Your task to perform on an android device: change notification settings in the gmail app Image 0: 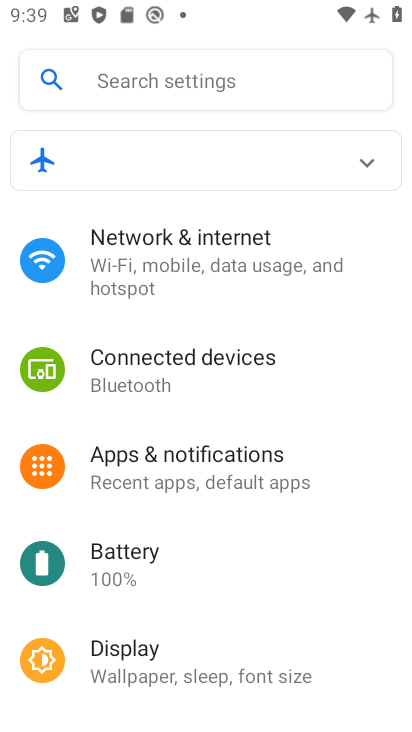
Step 0: press home button
Your task to perform on an android device: change notification settings in the gmail app Image 1: 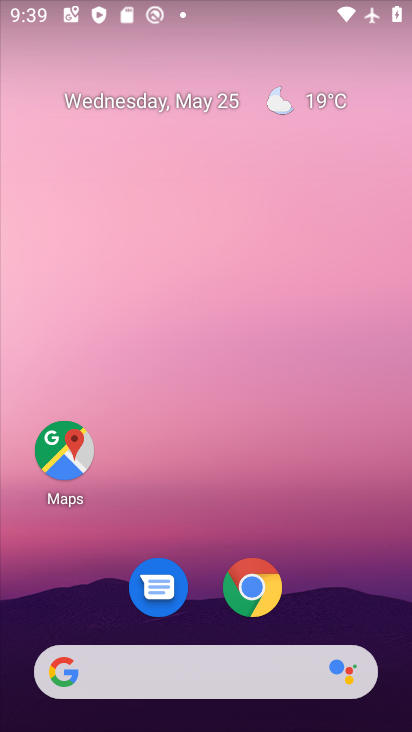
Step 1: drag from (406, 631) to (315, 188)
Your task to perform on an android device: change notification settings in the gmail app Image 2: 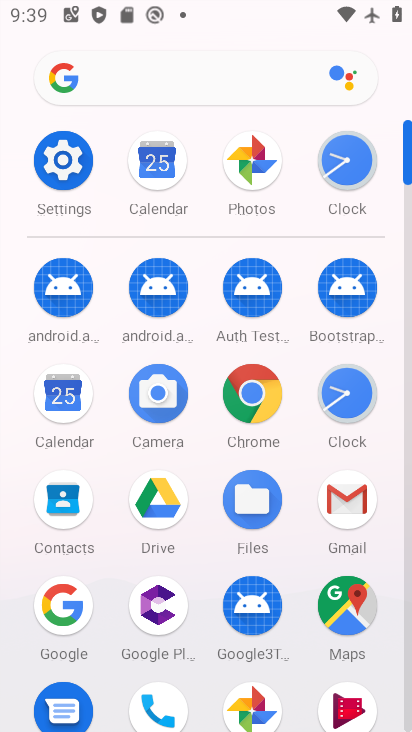
Step 2: click (405, 705)
Your task to perform on an android device: change notification settings in the gmail app Image 3: 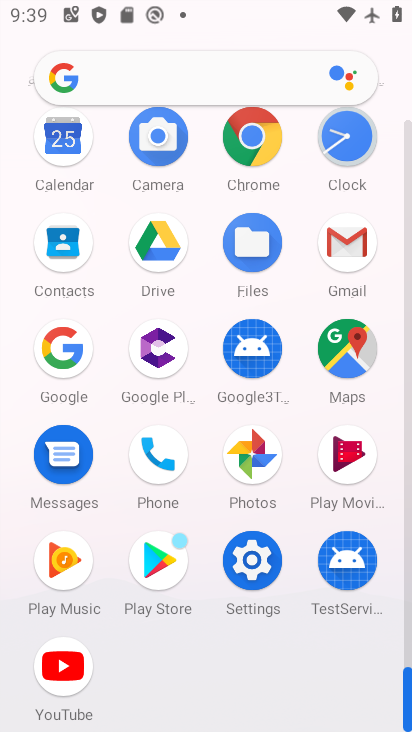
Step 3: click (345, 238)
Your task to perform on an android device: change notification settings in the gmail app Image 4: 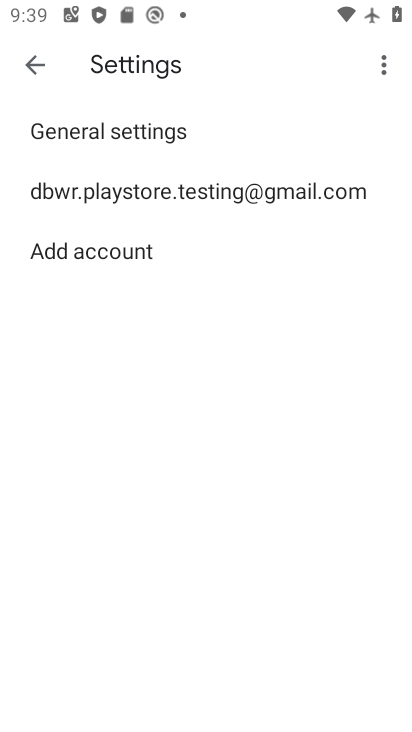
Step 4: click (137, 186)
Your task to perform on an android device: change notification settings in the gmail app Image 5: 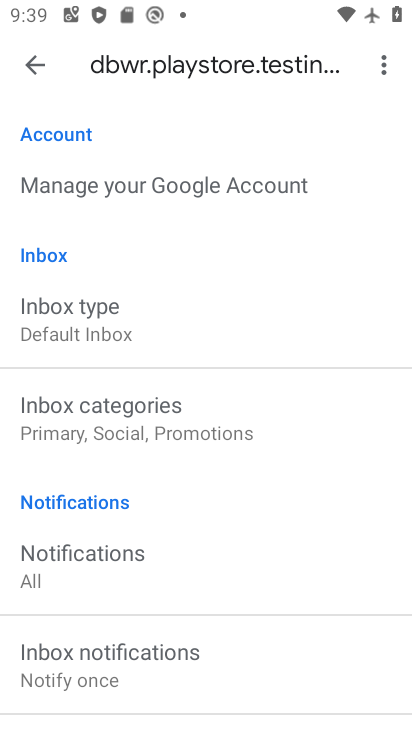
Step 5: drag from (249, 646) to (275, 168)
Your task to perform on an android device: change notification settings in the gmail app Image 6: 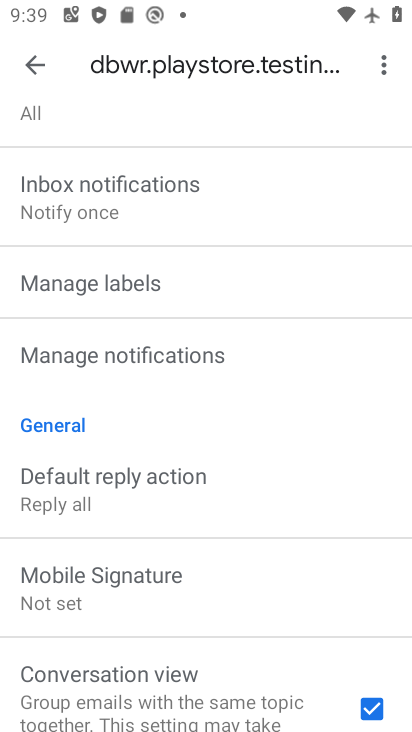
Step 6: click (82, 357)
Your task to perform on an android device: change notification settings in the gmail app Image 7: 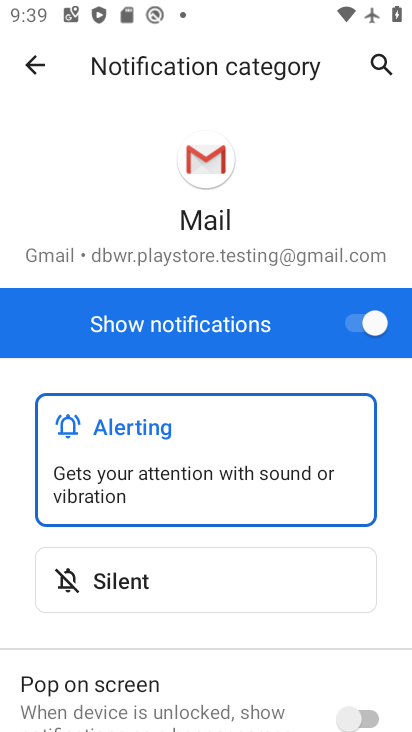
Step 7: click (350, 322)
Your task to perform on an android device: change notification settings in the gmail app Image 8: 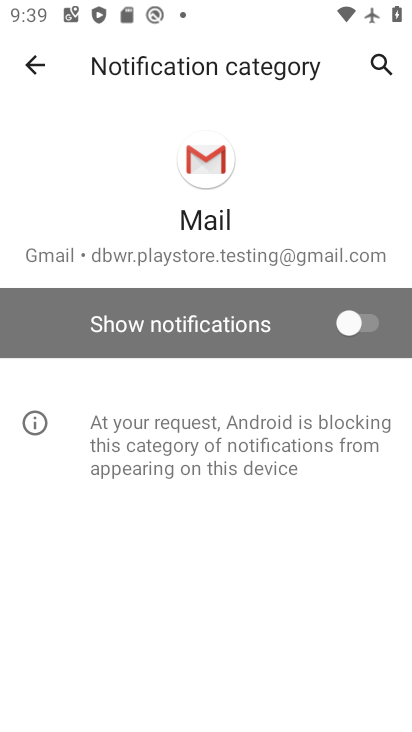
Step 8: task complete